Your task to perform on an android device: toggle airplane mode Image 0: 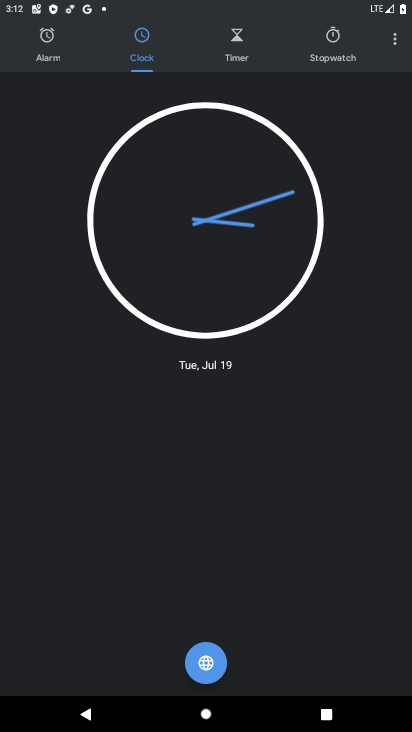
Step 0: press home button
Your task to perform on an android device: toggle airplane mode Image 1: 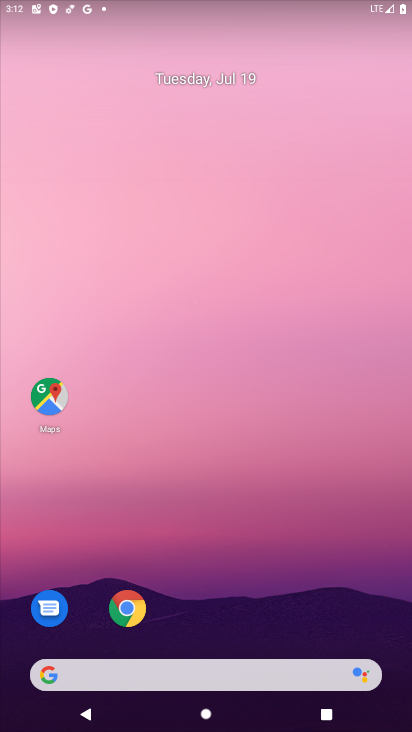
Step 1: drag from (212, 623) to (219, 93)
Your task to perform on an android device: toggle airplane mode Image 2: 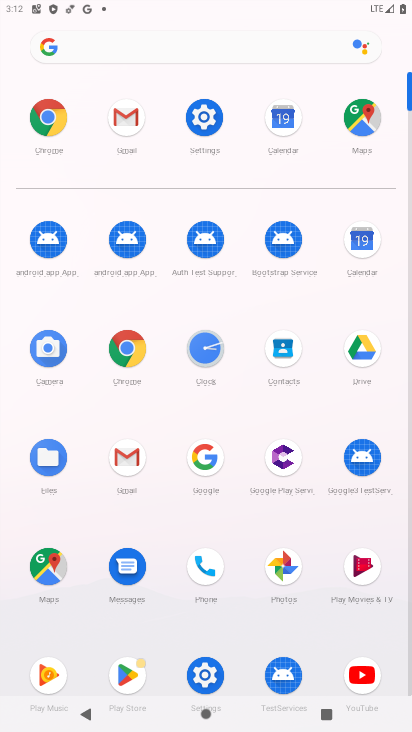
Step 2: click (200, 117)
Your task to perform on an android device: toggle airplane mode Image 3: 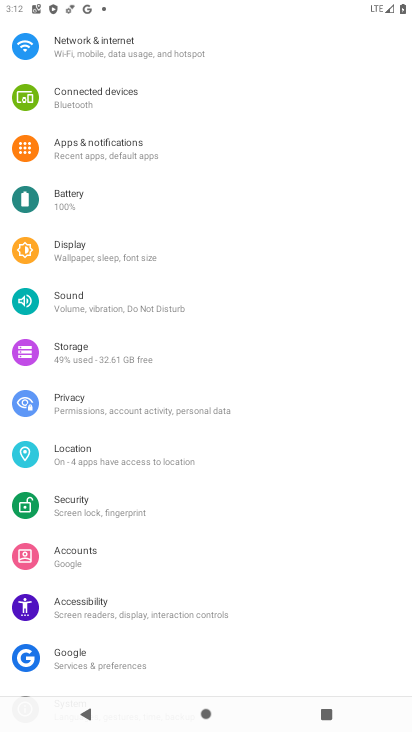
Step 3: click (117, 61)
Your task to perform on an android device: toggle airplane mode Image 4: 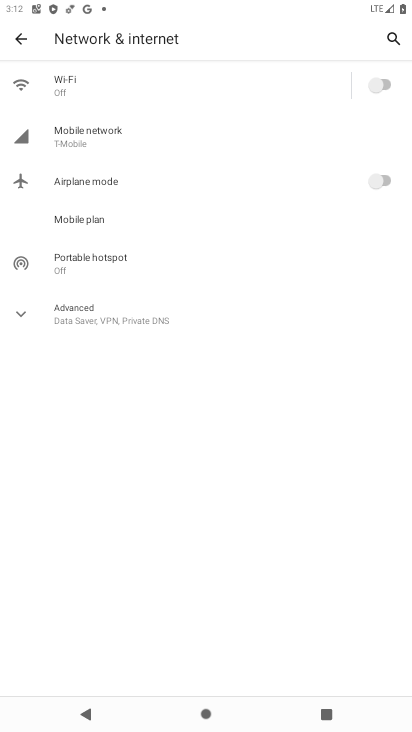
Step 4: click (382, 175)
Your task to perform on an android device: toggle airplane mode Image 5: 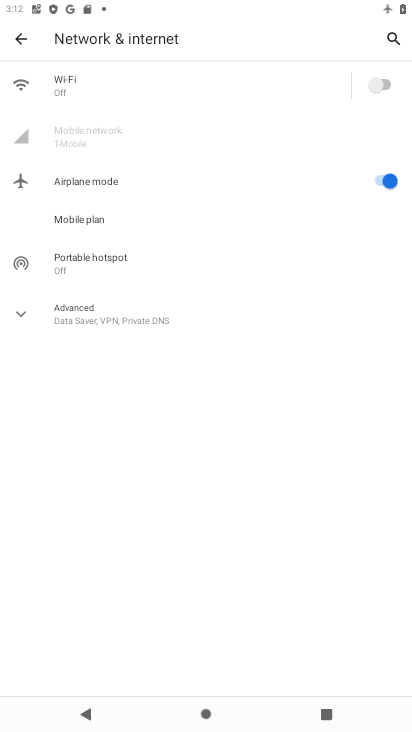
Step 5: task complete